Your task to perform on an android device: set an alarm Image 0: 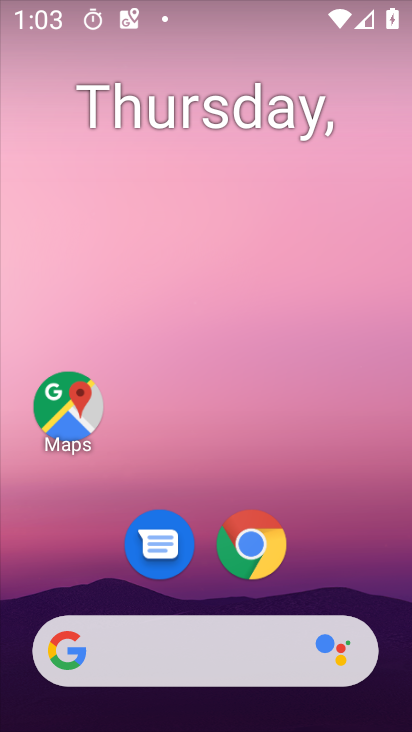
Step 0: drag from (66, 730) to (245, 230)
Your task to perform on an android device: set an alarm Image 1: 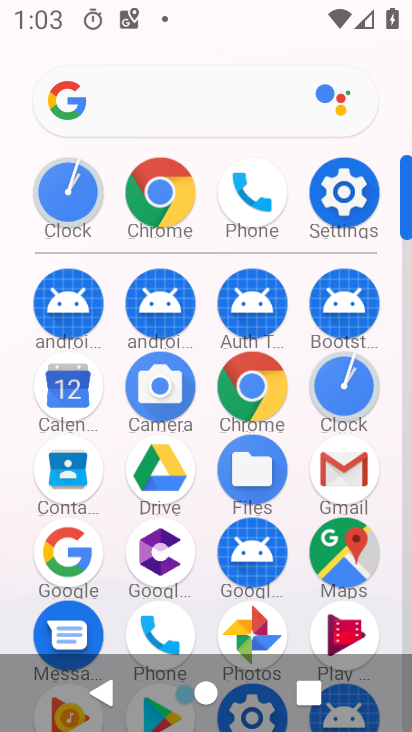
Step 1: click (335, 388)
Your task to perform on an android device: set an alarm Image 2: 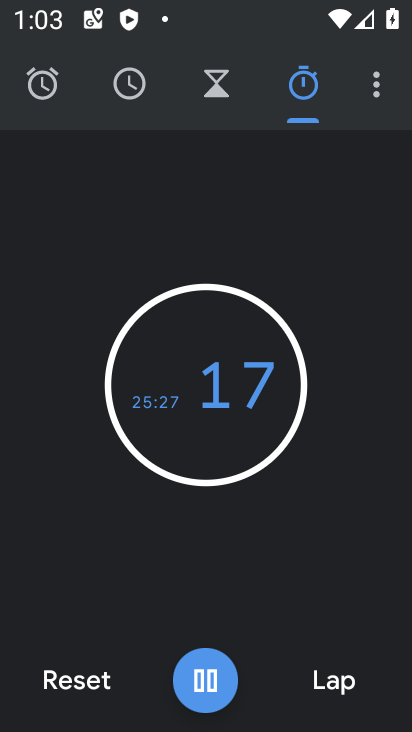
Step 2: click (52, 89)
Your task to perform on an android device: set an alarm Image 3: 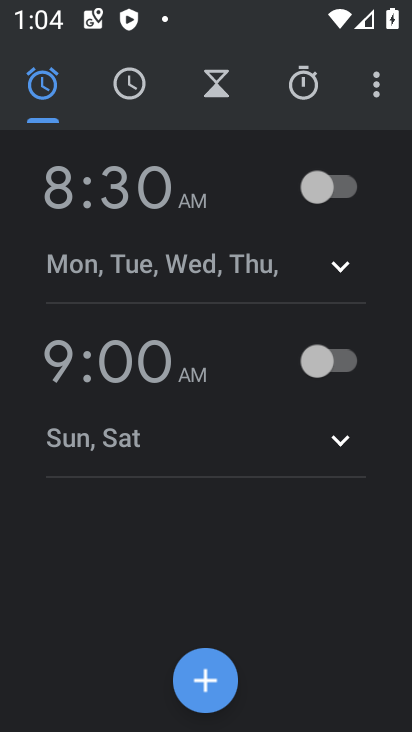
Step 3: click (232, 673)
Your task to perform on an android device: set an alarm Image 4: 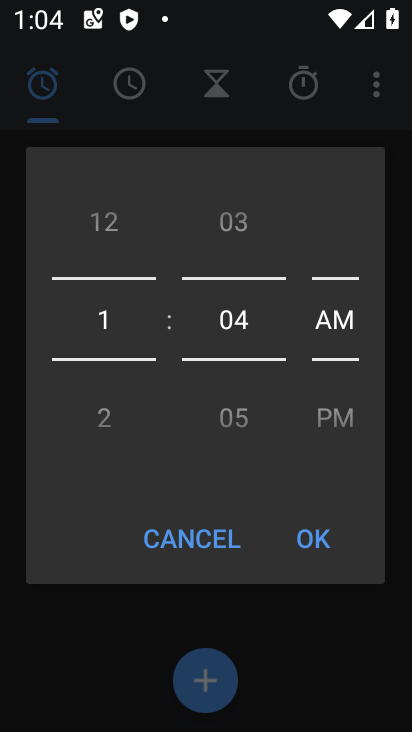
Step 4: click (327, 538)
Your task to perform on an android device: set an alarm Image 5: 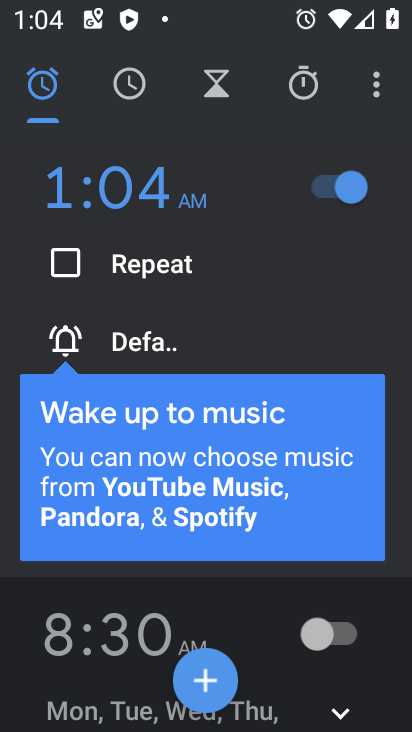
Step 5: task complete